Your task to perform on an android device: See recent photos Image 0: 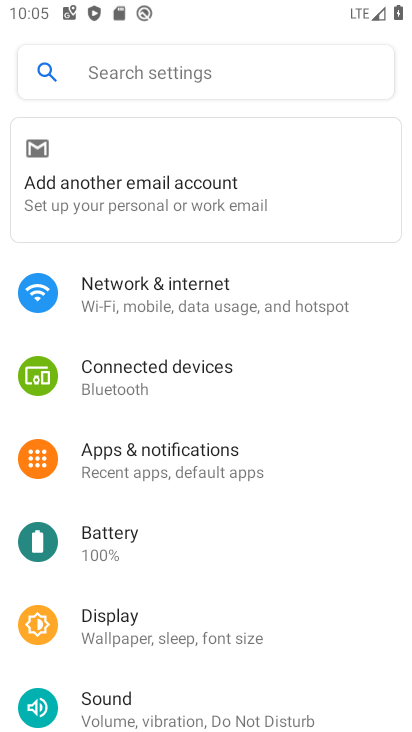
Step 0: press home button
Your task to perform on an android device: See recent photos Image 1: 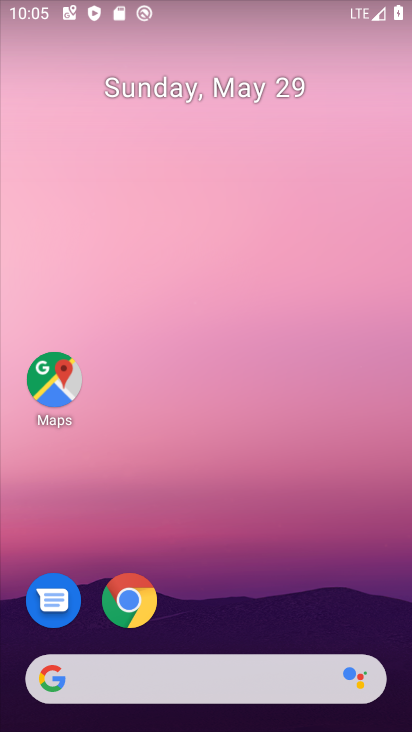
Step 1: drag from (387, 624) to (72, 129)
Your task to perform on an android device: See recent photos Image 2: 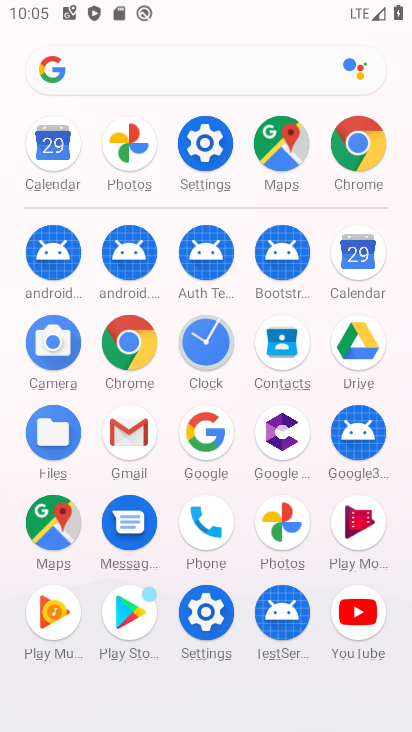
Step 2: click (285, 526)
Your task to perform on an android device: See recent photos Image 3: 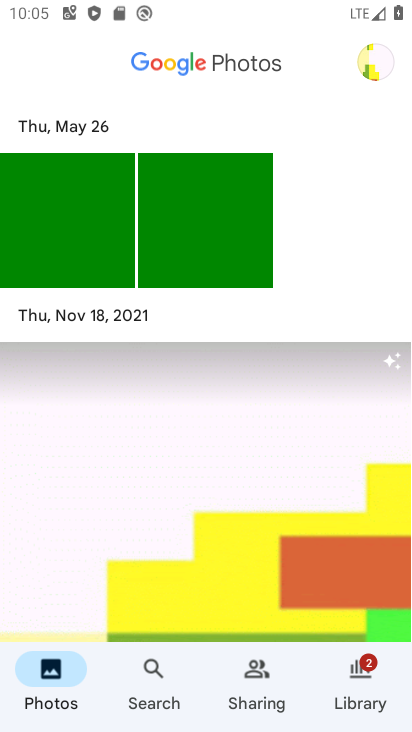
Step 3: task complete